Your task to perform on an android device: Open privacy settings Image 0: 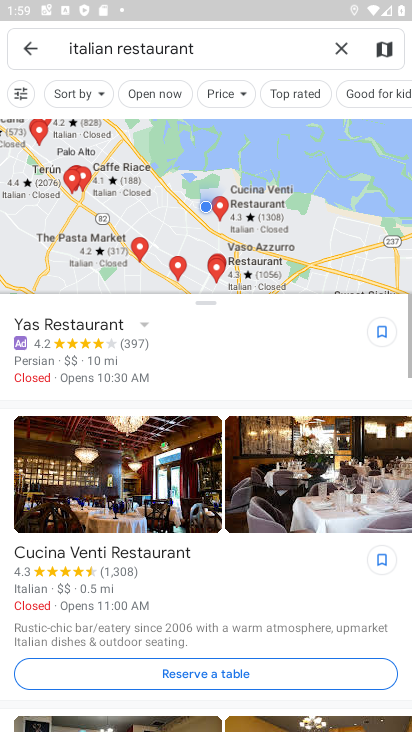
Step 0: press home button
Your task to perform on an android device: Open privacy settings Image 1: 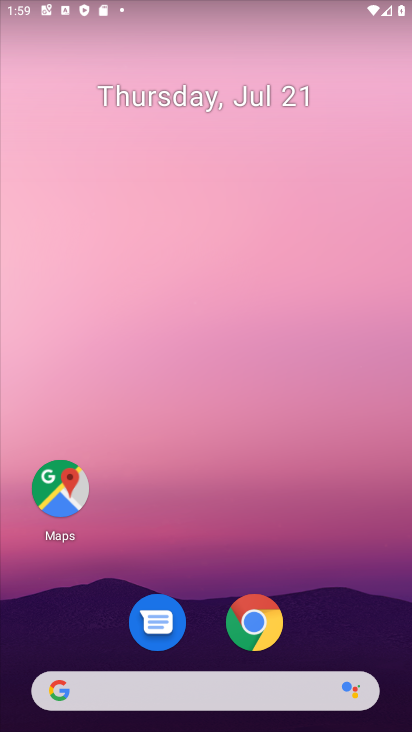
Step 1: drag from (321, 692) to (231, 71)
Your task to perform on an android device: Open privacy settings Image 2: 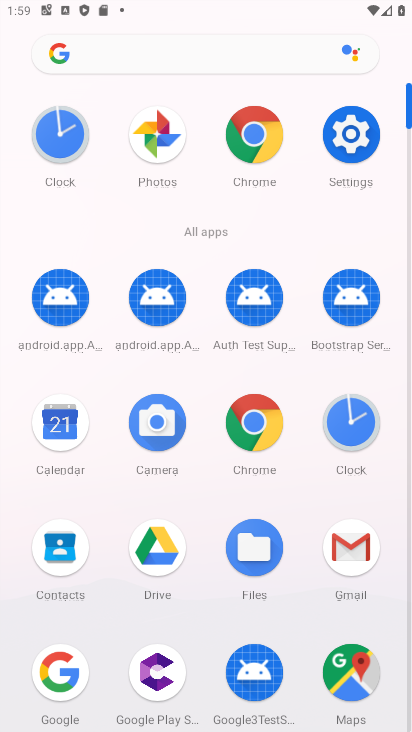
Step 2: click (359, 129)
Your task to perform on an android device: Open privacy settings Image 3: 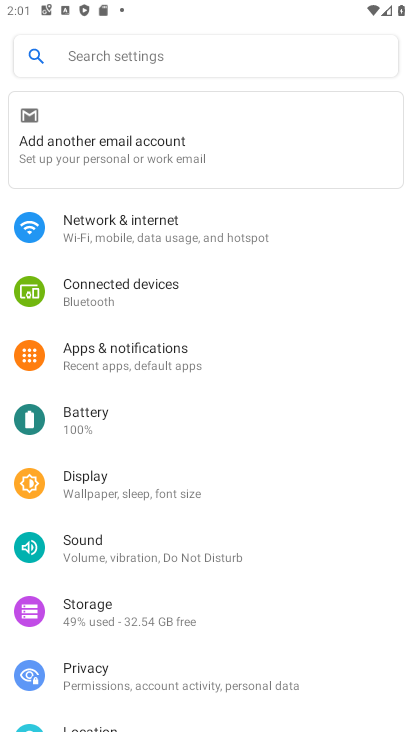
Step 3: click (103, 669)
Your task to perform on an android device: Open privacy settings Image 4: 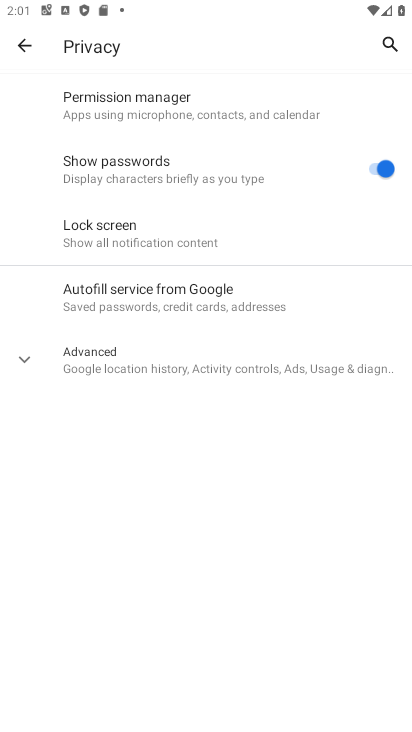
Step 4: task complete